Your task to perform on an android device: Show me the alarms in the clock app Image 0: 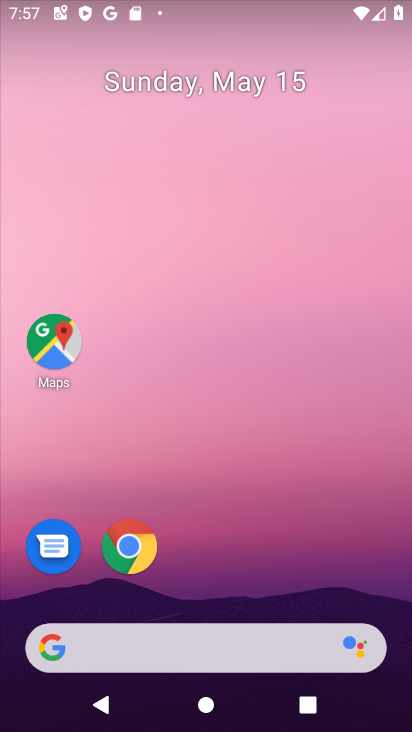
Step 0: drag from (240, 337) to (220, 45)
Your task to perform on an android device: Show me the alarms in the clock app Image 1: 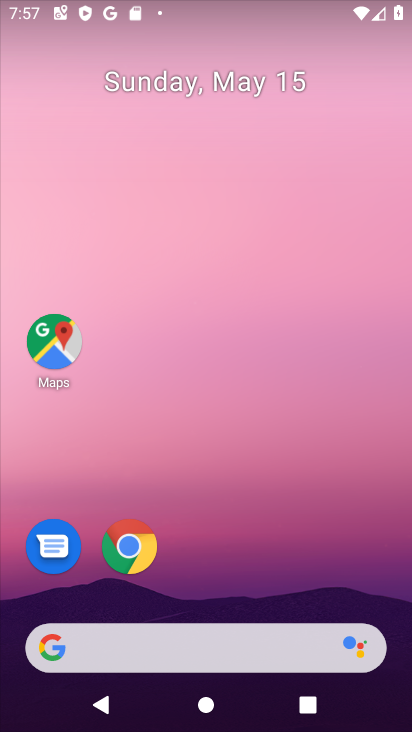
Step 1: drag from (228, 482) to (229, 19)
Your task to perform on an android device: Show me the alarms in the clock app Image 2: 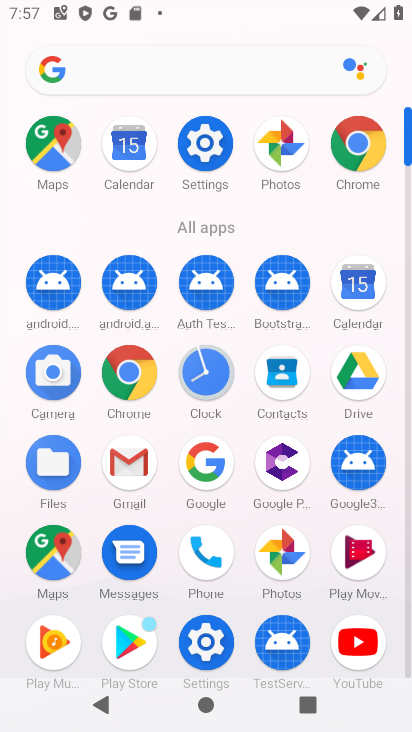
Step 2: click (204, 366)
Your task to perform on an android device: Show me the alarms in the clock app Image 3: 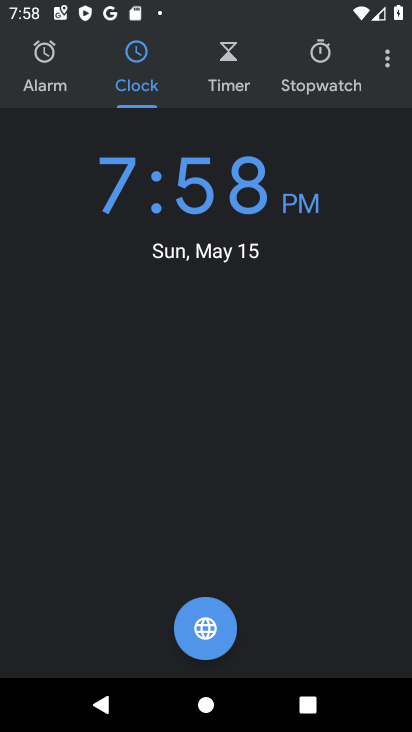
Step 3: click (53, 73)
Your task to perform on an android device: Show me the alarms in the clock app Image 4: 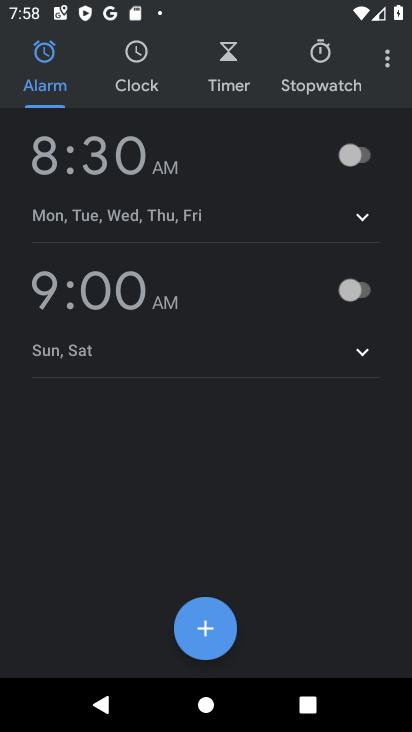
Step 4: task complete